Your task to perform on an android device: Show me popular games on the Play Store Image 0: 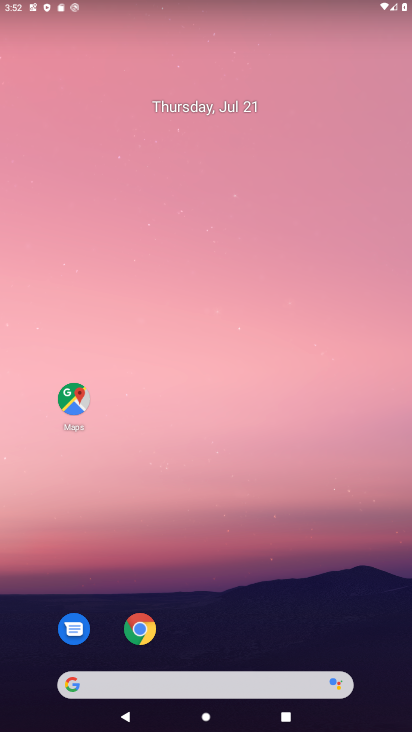
Step 0: drag from (276, 523) to (334, 16)
Your task to perform on an android device: Show me popular games on the Play Store Image 1: 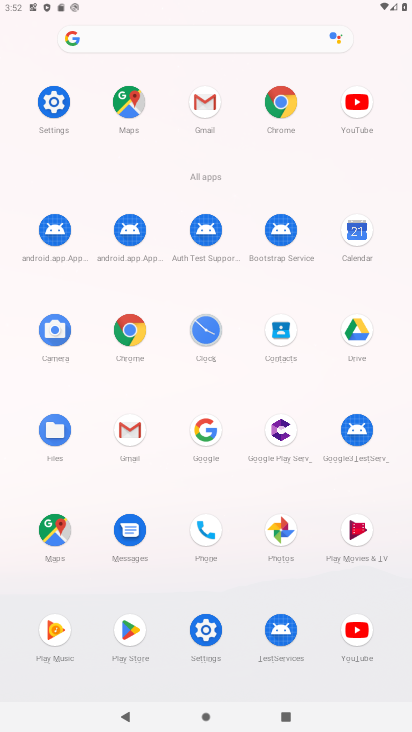
Step 1: click (130, 640)
Your task to perform on an android device: Show me popular games on the Play Store Image 2: 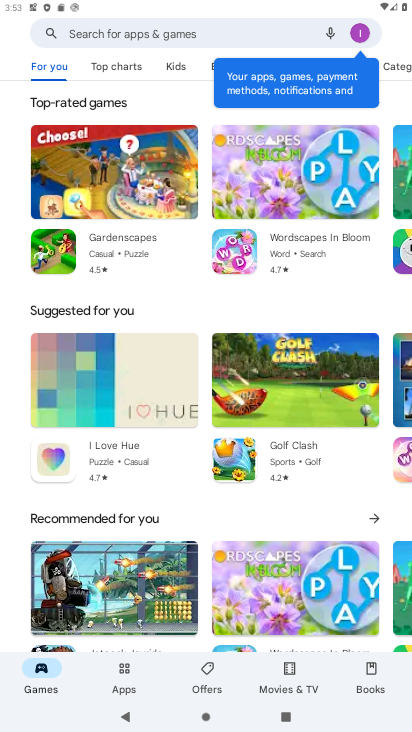
Step 2: click (145, 29)
Your task to perform on an android device: Show me popular games on the Play Store Image 3: 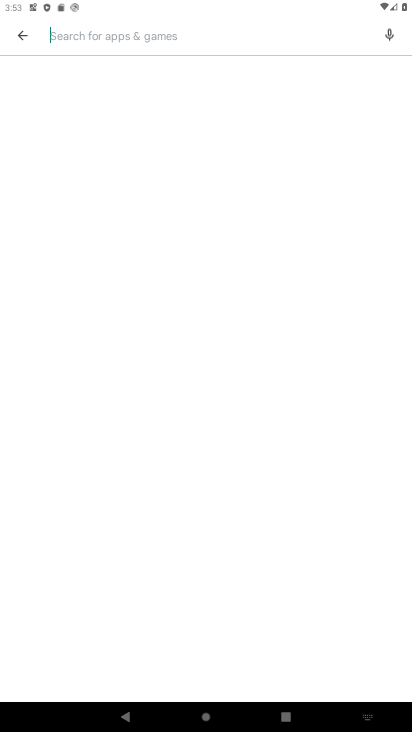
Step 3: type " popular games "
Your task to perform on an android device: Show me popular games on the Play Store Image 4: 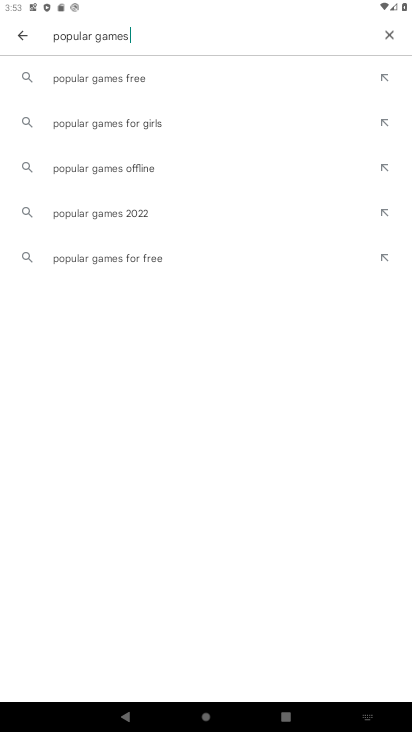
Step 4: press enter
Your task to perform on an android device: Show me popular games on the Play Store Image 5: 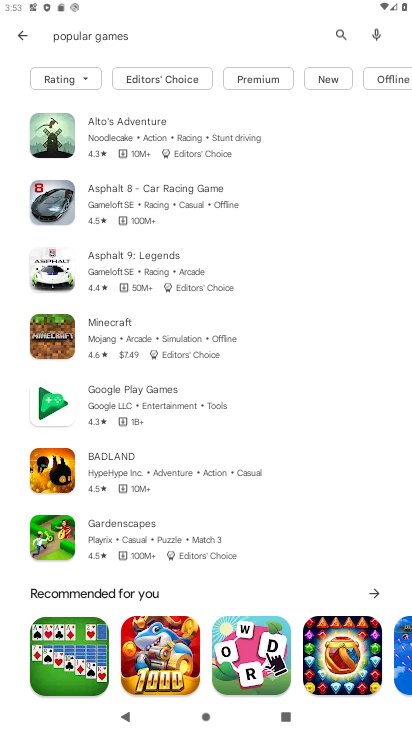
Step 5: task complete